Your task to perform on an android device: find snoozed emails in the gmail app Image 0: 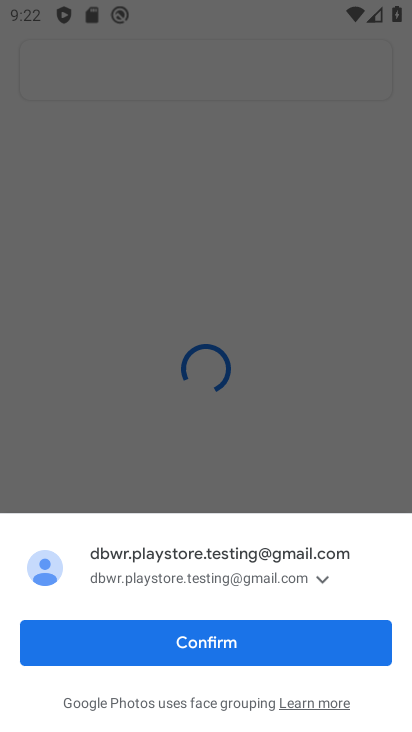
Step 0: press home button
Your task to perform on an android device: find snoozed emails in the gmail app Image 1: 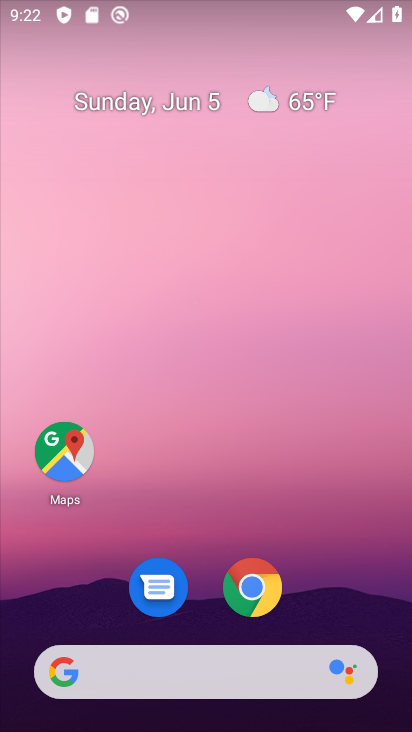
Step 1: drag from (61, 636) to (200, 184)
Your task to perform on an android device: find snoozed emails in the gmail app Image 2: 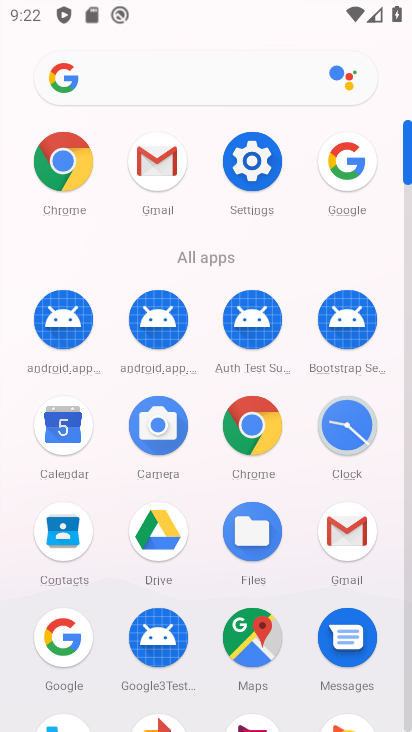
Step 2: click (339, 530)
Your task to perform on an android device: find snoozed emails in the gmail app Image 3: 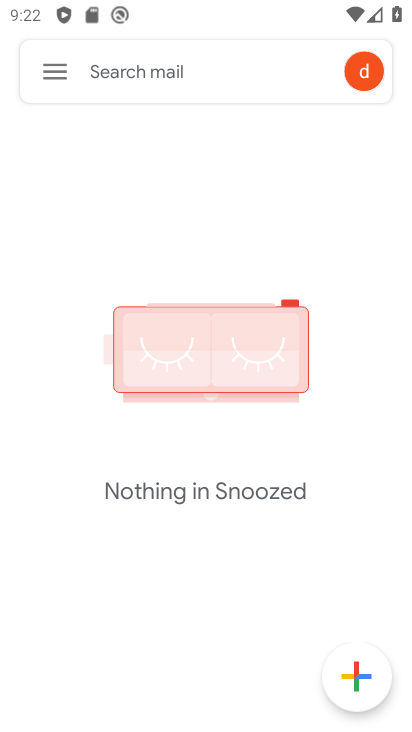
Step 3: click (59, 78)
Your task to perform on an android device: find snoozed emails in the gmail app Image 4: 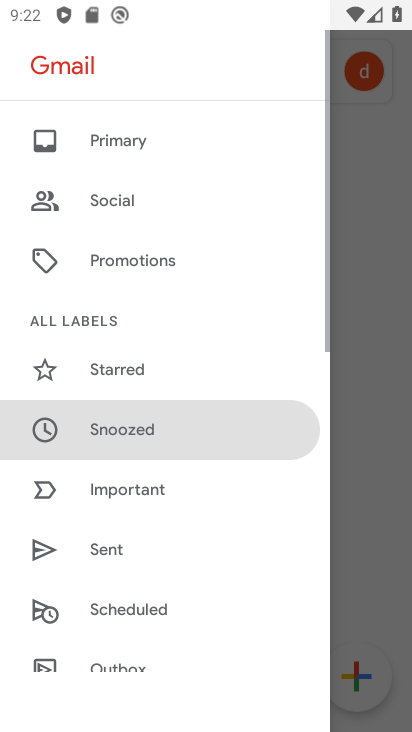
Step 4: drag from (170, 160) to (179, 317)
Your task to perform on an android device: find snoozed emails in the gmail app Image 5: 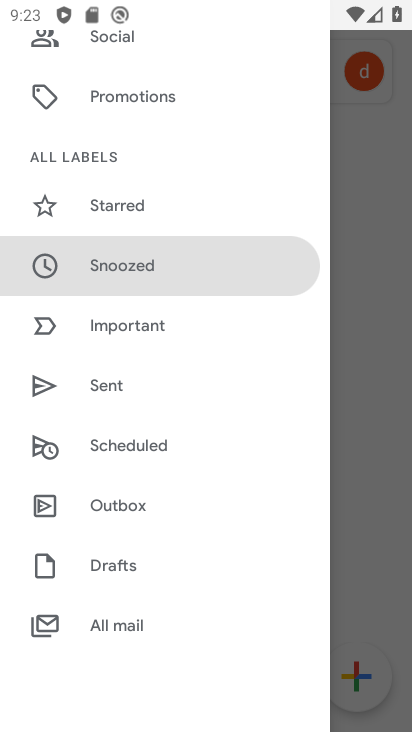
Step 5: click (122, 278)
Your task to perform on an android device: find snoozed emails in the gmail app Image 6: 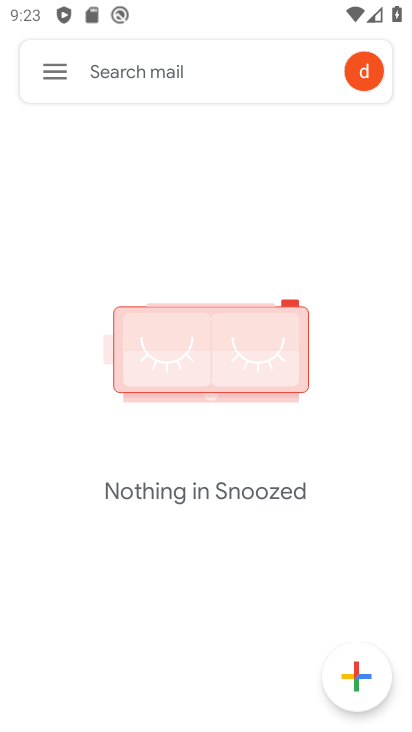
Step 6: task complete